Your task to perform on an android device: Open accessibility settings Image 0: 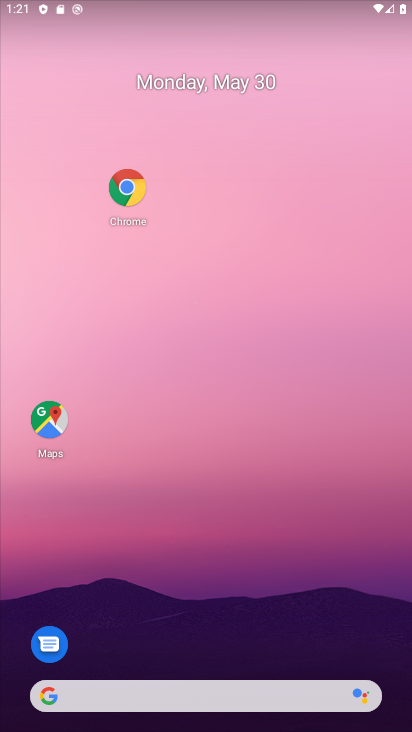
Step 0: drag from (178, 663) to (174, 73)
Your task to perform on an android device: Open accessibility settings Image 1: 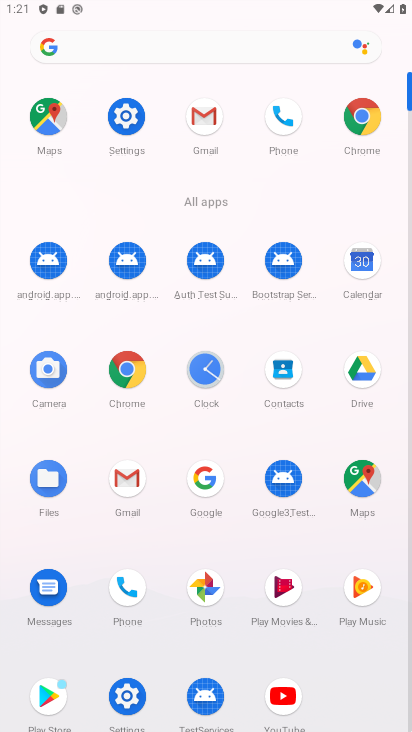
Step 1: click (121, 112)
Your task to perform on an android device: Open accessibility settings Image 2: 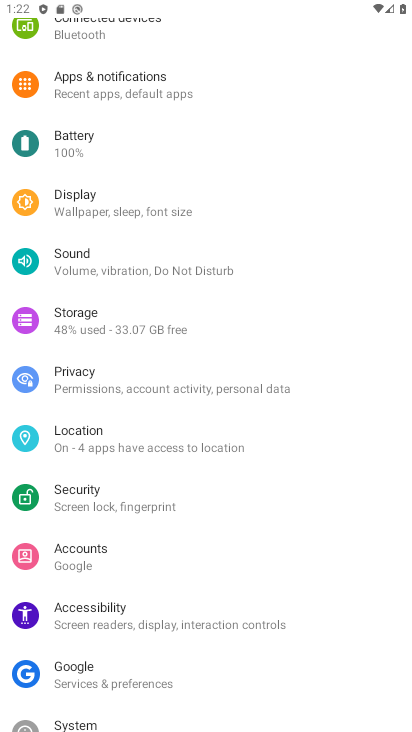
Step 2: click (94, 605)
Your task to perform on an android device: Open accessibility settings Image 3: 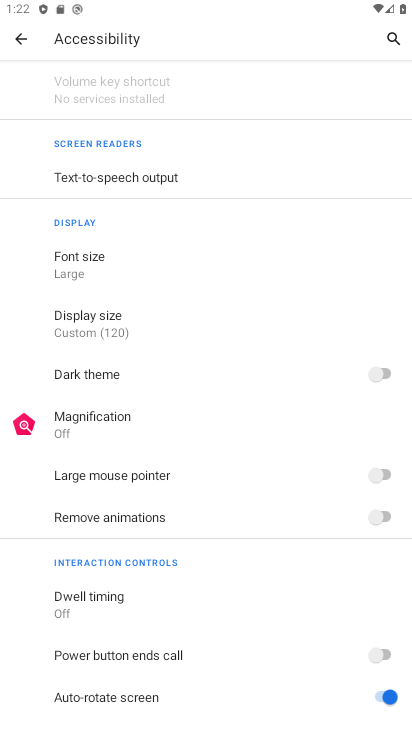
Step 3: task complete